Your task to perform on an android device: Search for sushi restaurants on Maps Image 0: 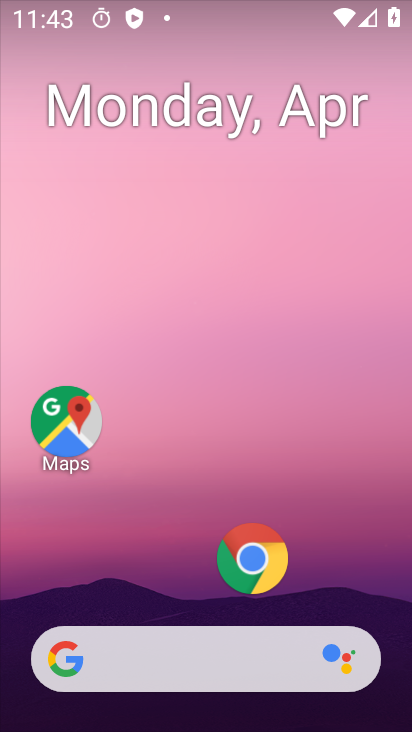
Step 0: click (60, 408)
Your task to perform on an android device: Search for sushi restaurants on Maps Image 1: 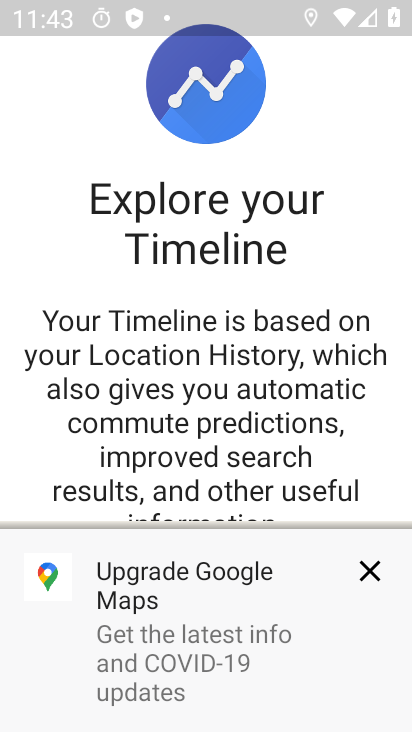
Step 1: click (366, 570)
Your task to perform on an android device: Search for sushi restaurants on Maps Image 2: 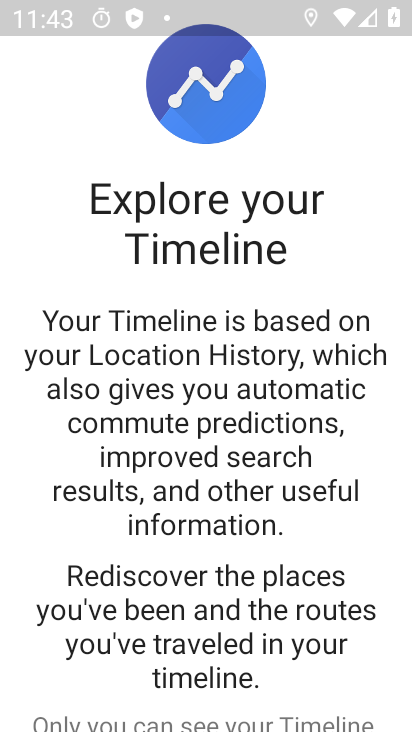
Step 2: press back button
Your task to perform on an android device: Search for sushi restaurants on Maps Image 3: 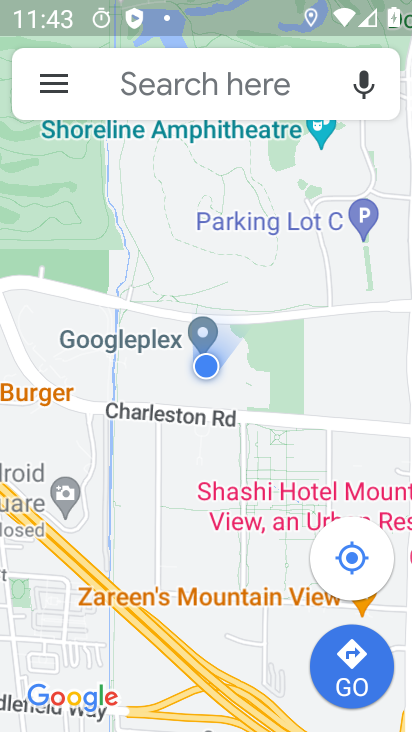
Step 3: click (185, 81)
Your task to perform on an android device: Search for sushi restaurants on Maps Image 4: 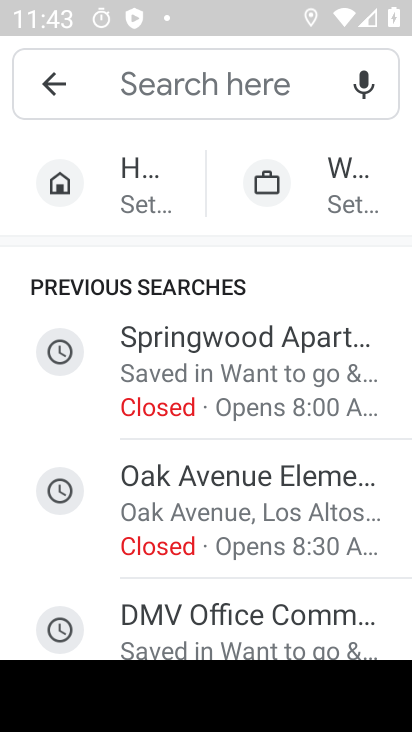
Step 4: type "sushi restaurants"
Your task to perform on an android device: Search for sushi restaurants on Maps Image 5: 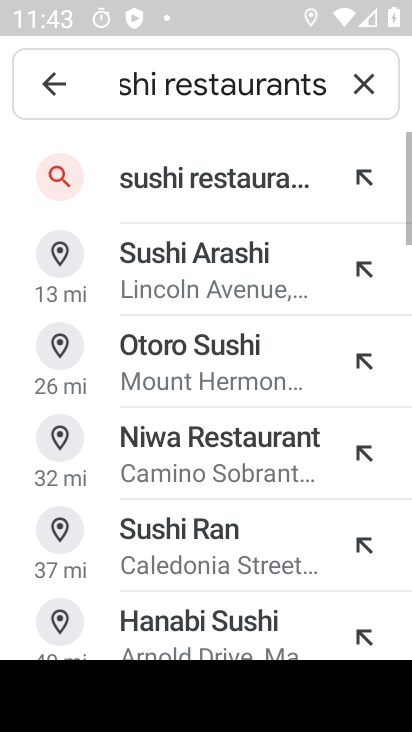
Step 5: click (222, 186)
Your task to perform on an android device: Search for sushi restaurants on Maps Image 6: 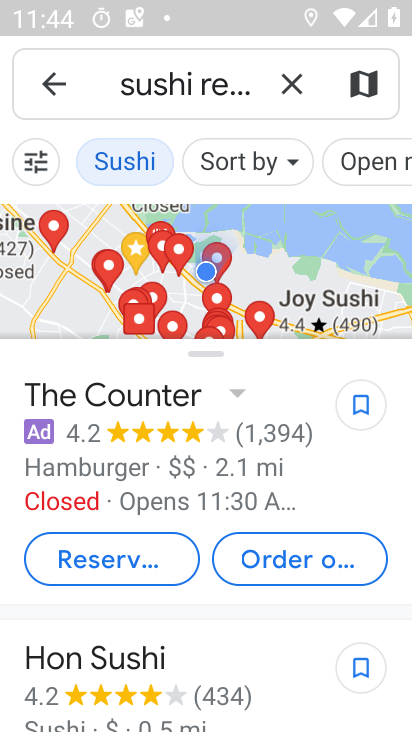
Step 6: task complete